Your task to perform on an android device: empty trash in google photos Image 0: 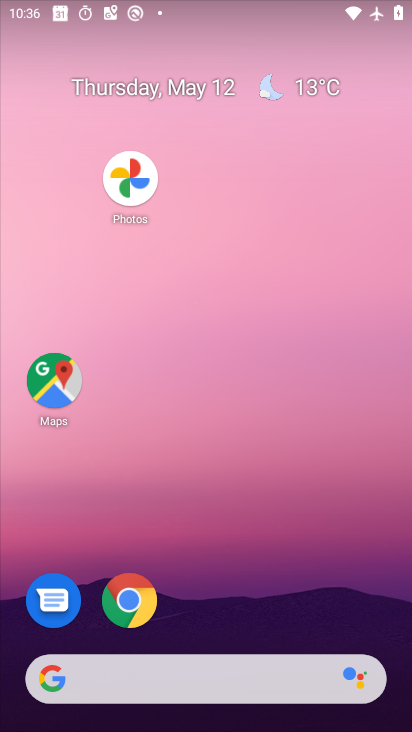
Step 0: drag from (273, 509) to (157, 65)
Your task to perform on an android device: empty trash in google photos Image 1: 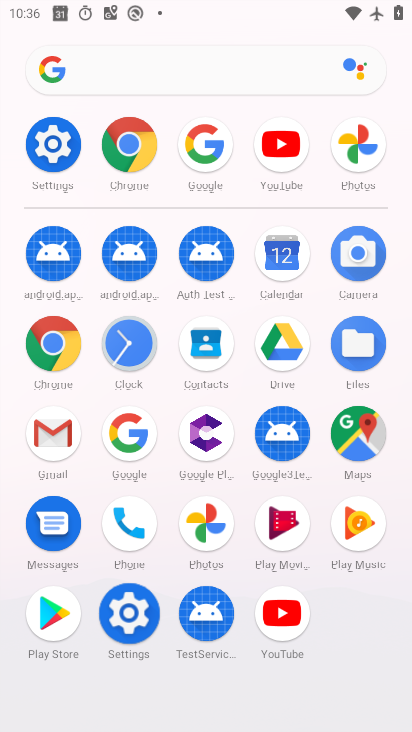
Step 1: click (210, 527)
Your task to perform on an android device: empty trash in google photos Image 2: 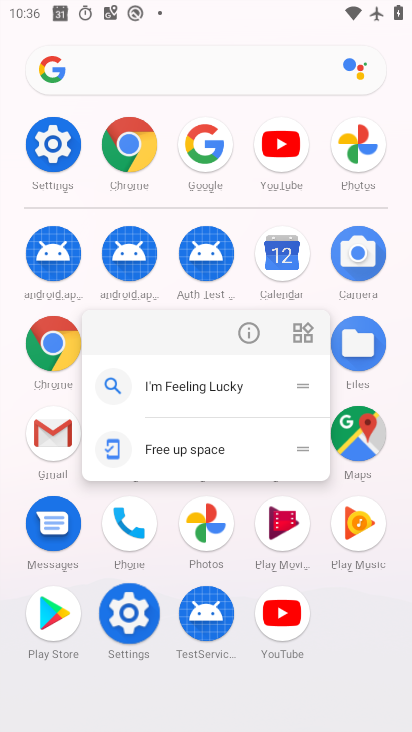
Step 2: click (206, 514)
Your task to perform on an android device: empty trash in google photos Image 3: 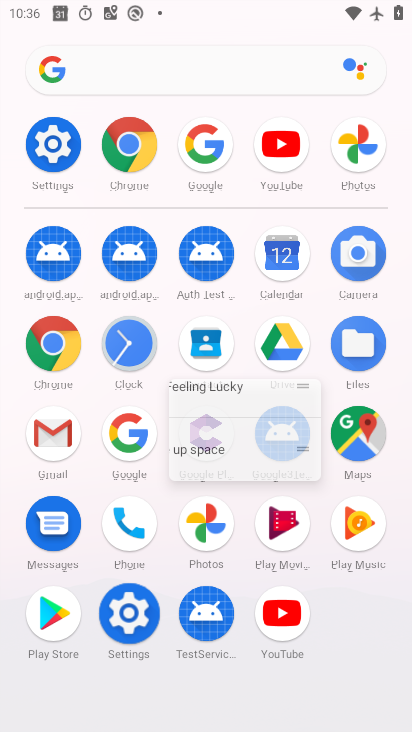
Step 3: click (206, 514)
Your task to perform on an android device: empty trash in google photos Image 4: 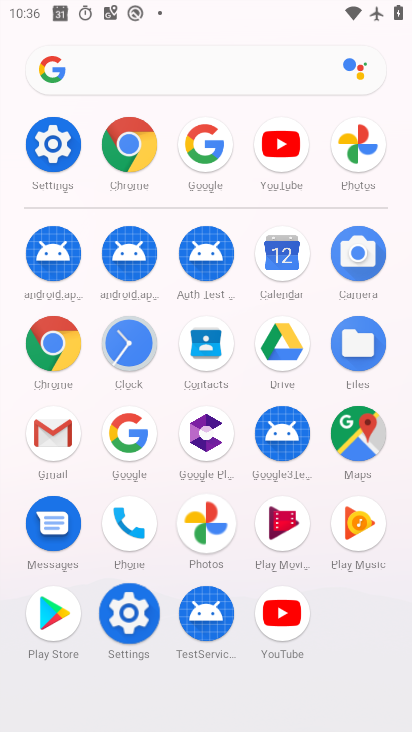
Step 4: click (206, 514)
Your task to perform on an android device: empty trash in google photos Image 5: 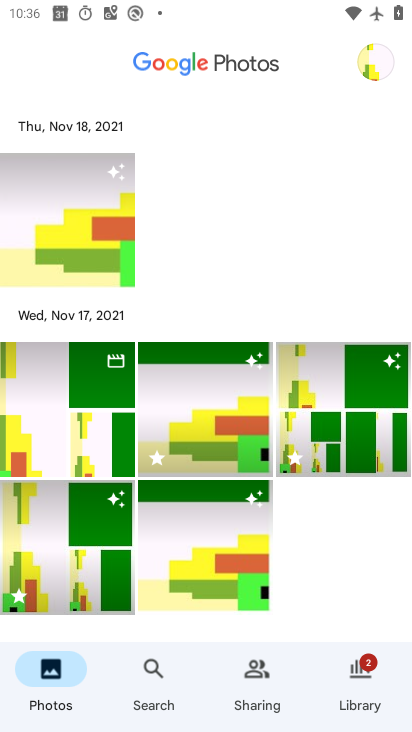
Step 5: drag from (216, 527) to (201, 72)
Your task to perform on an android device: empty trash in google photos Image 6: 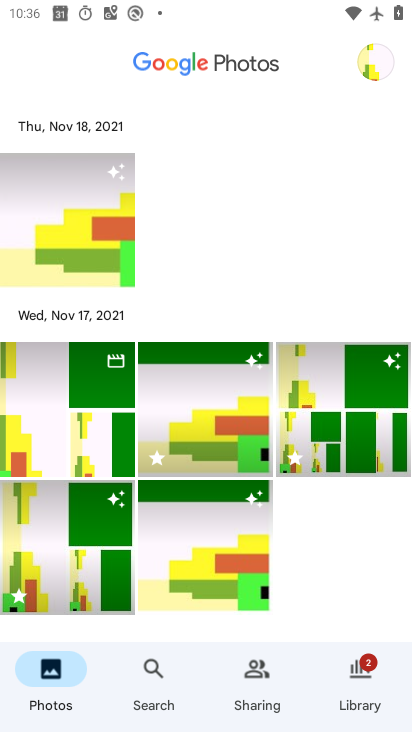
Step 6: drag from (232, 472) to (152, 51)
Your task to perform on an android device: empty trash in google photos Image 7: 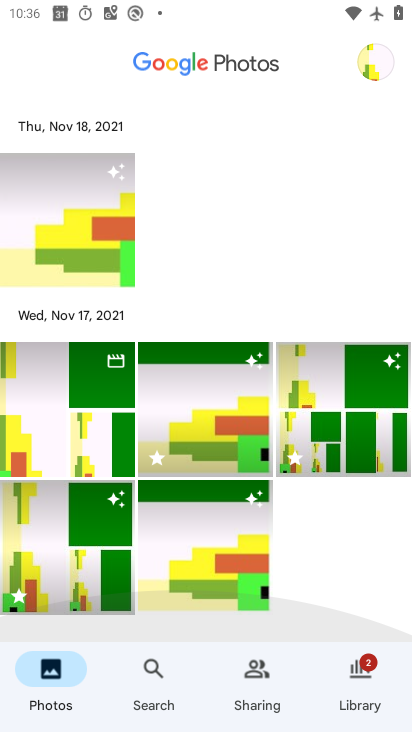
Step 7: drag from (188, 428) to (226, 43)
Your task to perform on an android device: empty trash in google photos Image 8: 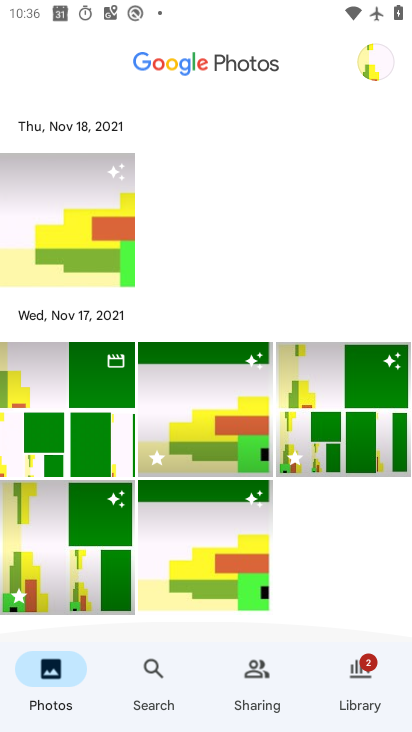
Step 8: drag from (242, 331) to (212, 122)
Your task to perform on an android device: empty trash in google photos Image 9: 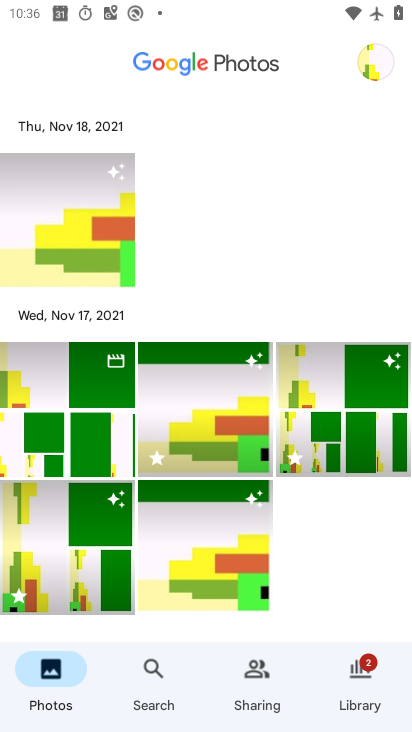
Step 9: drag from (229, 437) to (211, 106)
Your task to perform on an android device: empty trash in google photos Image 10: 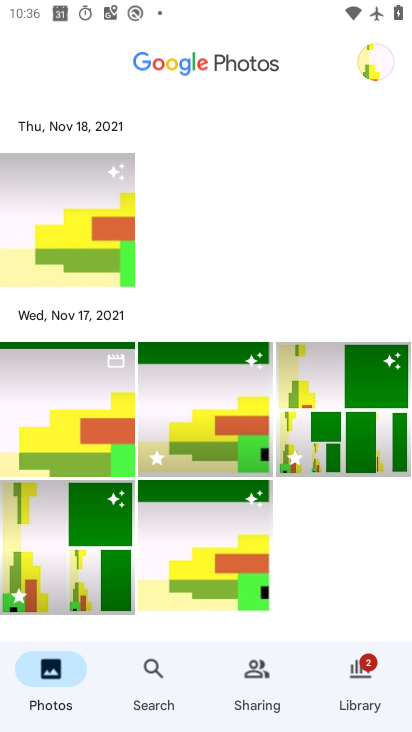
Step 10: drag from (166, 385) to (166, 206)
Your task to perform on an android device: empty trash in google photos Image 11: 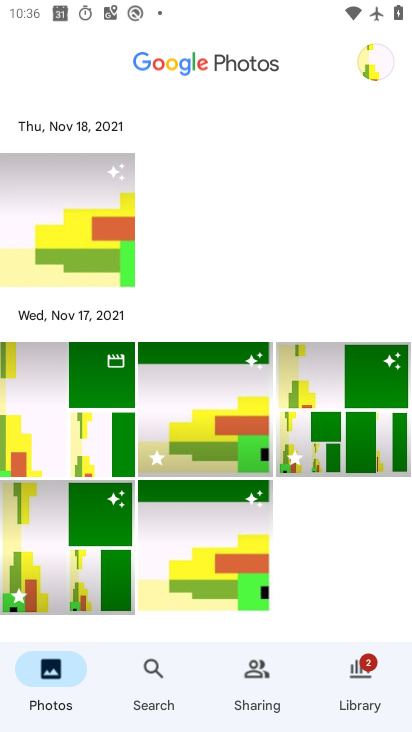
Step 11: press back button
Your task to perform on an android device: empty trash in google photos Image 12: 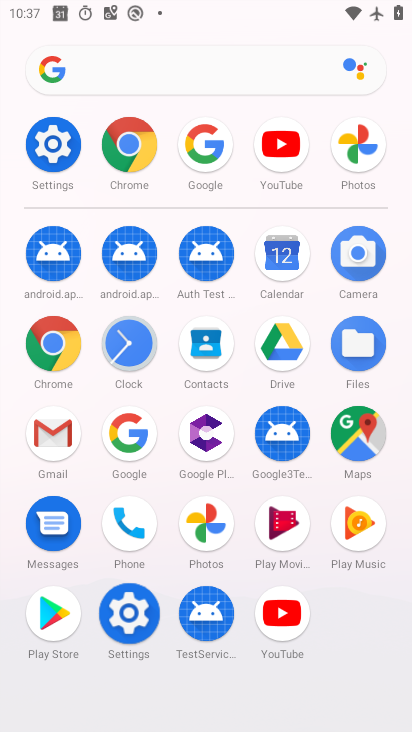
Step 12: click (197, 523)
Your task to perform on an android device: empty trash in google photos Image 13: 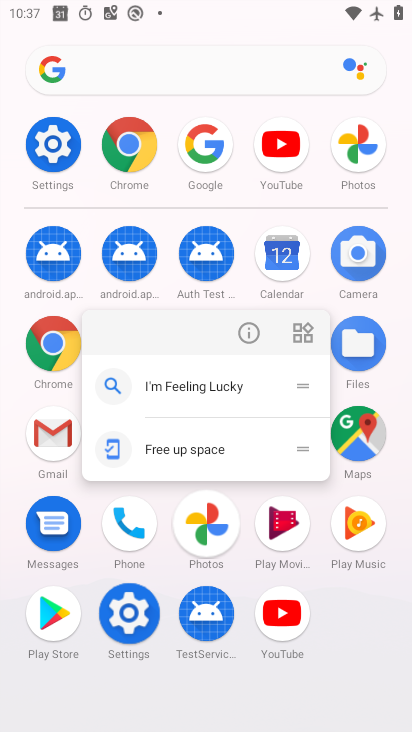
Step 13: click (197, 523)
Your task to perform on an android device: empty trash in google photos Image 14: 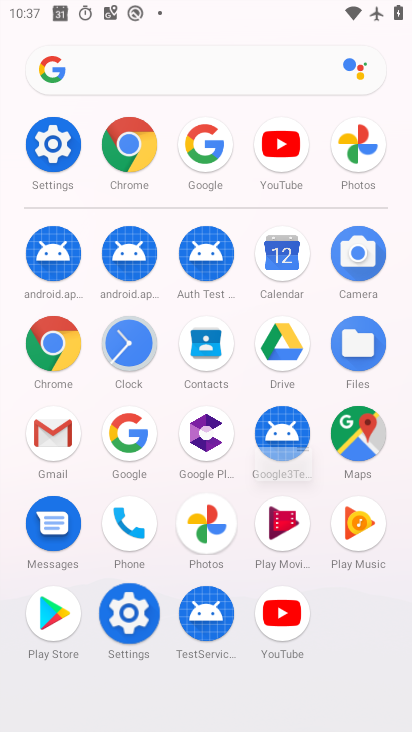
Step 14: click (200, 525)
Your task to perform on an android device: empty trash in google photos Image 15: 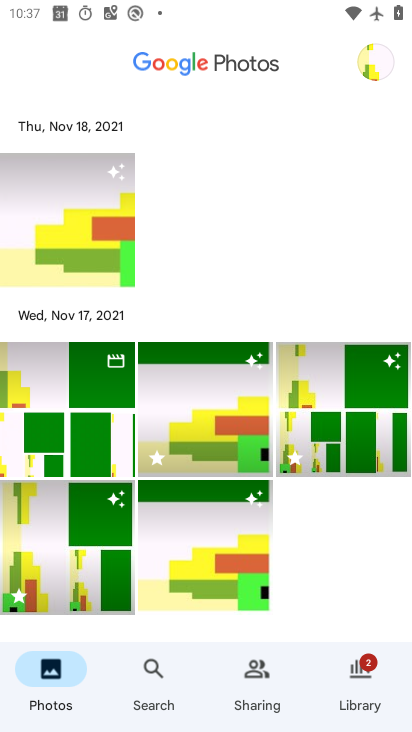
Step 15: drag from (148, 517) to (114, 81)
Your task to perform on an android device: empty trash in google photos Image 16: 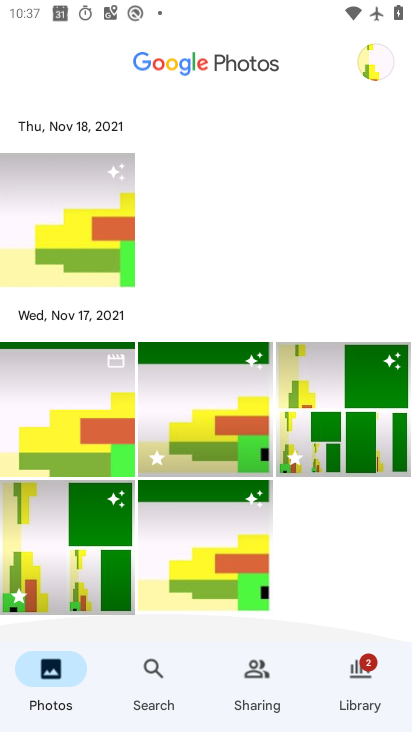
Step 16: drag from (185, 395) to (185, 295)
Your task to perform on an android device: empty trash in google photos Image 17: 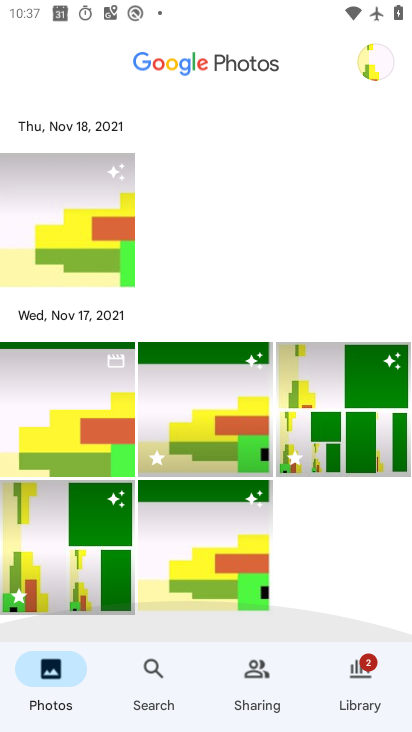
Step 17: drag from (201, 475) to (192, 206)
Your task to perform on an android device: empty trash in google photos Image 18: 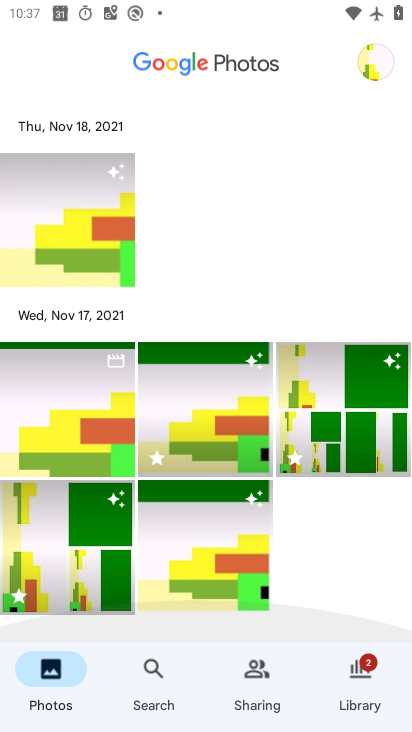
Step 18: drag from (232, 465) to (143, 163)
Your task to perform on an android device: empty trash in google photos Image 19: 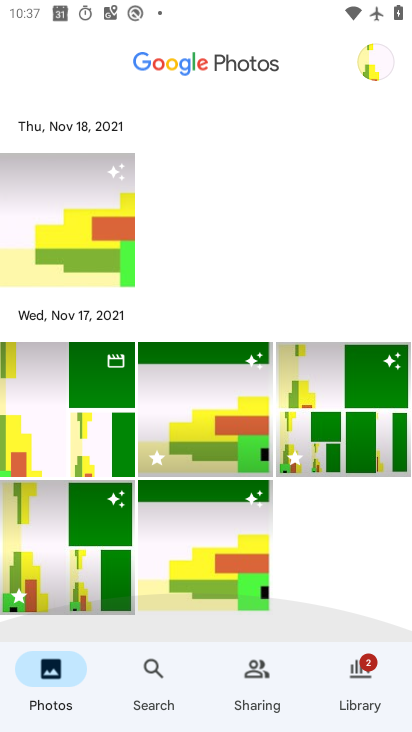
Step 19: drag from (172, 408) to (159, 109)
Your task to perform on an android device: empty trash in google photos Image 20: 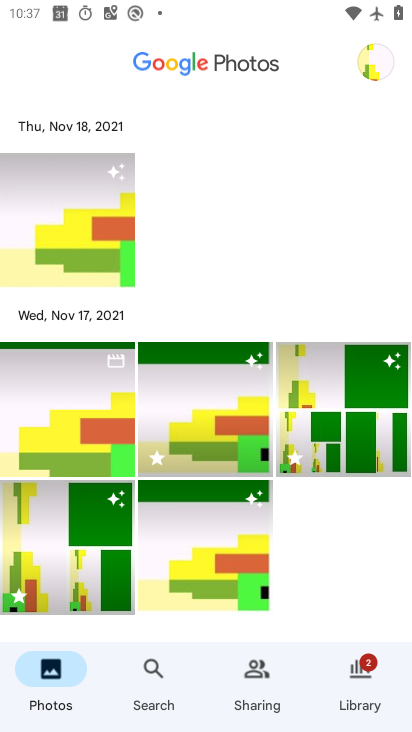
Step 20: press back button
Your task to perform on an android device: empty trash in google photos Image 21: 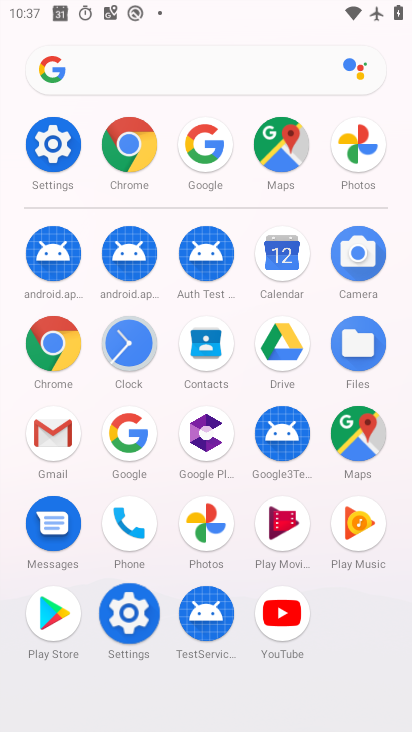
Step 21: drag from (333, 627) to (260, 284)
Your task to perform on an android device: empty trash in google photos Image 22: 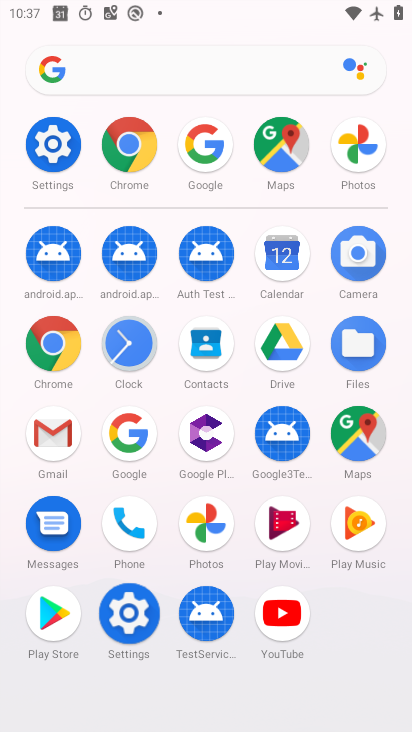
Step 22: click (198, 512)
Your task to perform on an android device: empty trash in google photos Image 23: 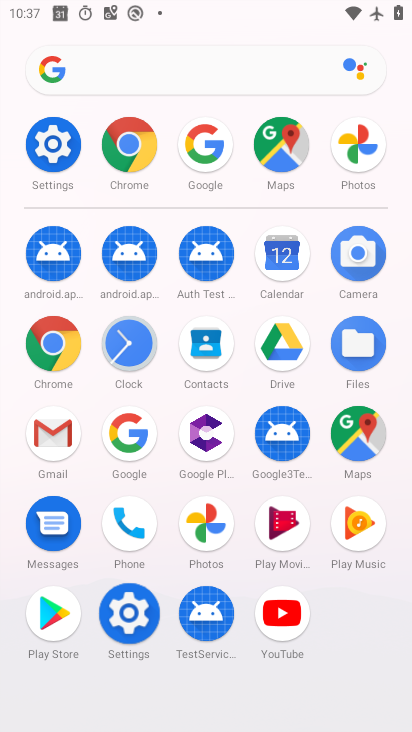
Step 23: click (198, 512)
Your task to perform on an android device: empty trash in google photos Image 24: 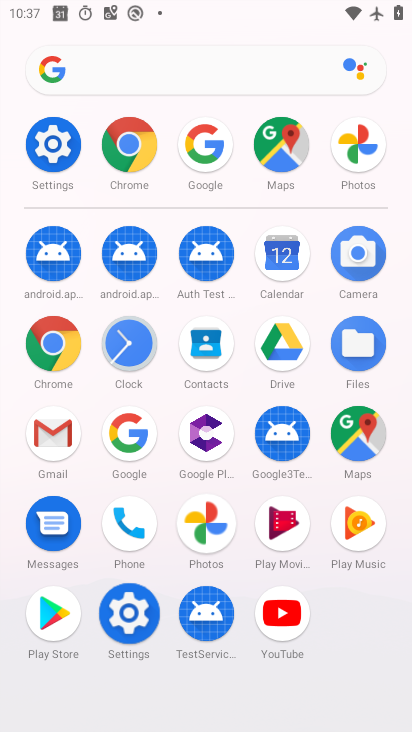
Step 24: click (198, 512)
Your task to perform on an android device: empty trash in google photos Image 25: 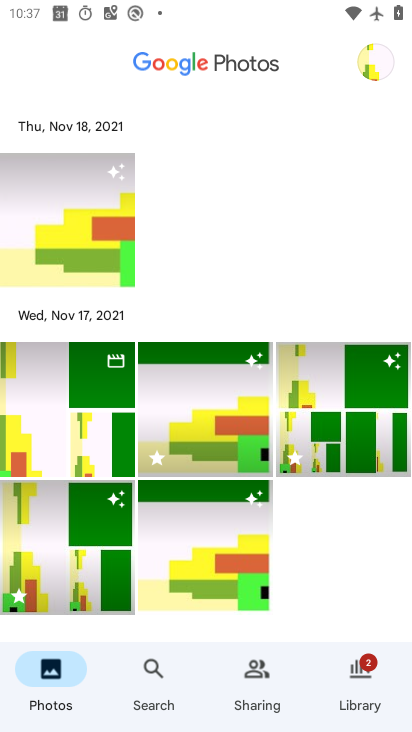
Step 25: drag from (140, 505) to (143, 61)
Your task to perform on an android device: empty trash in google photos Image 26: 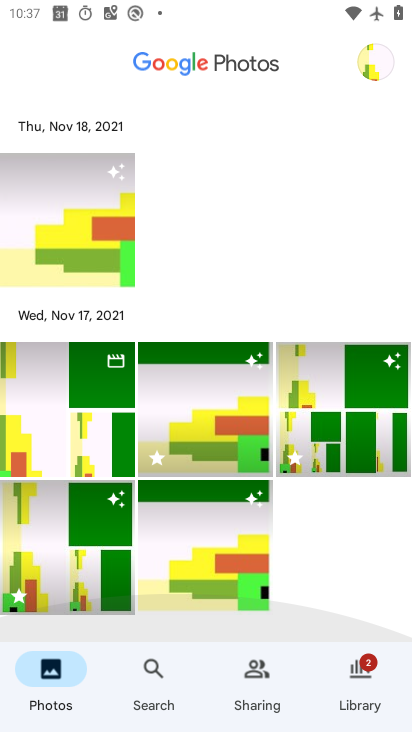
Step 26: drag from (220, 432) to (193, 61)
Your task to perform on an android device: empty trash in google photos Image 27: 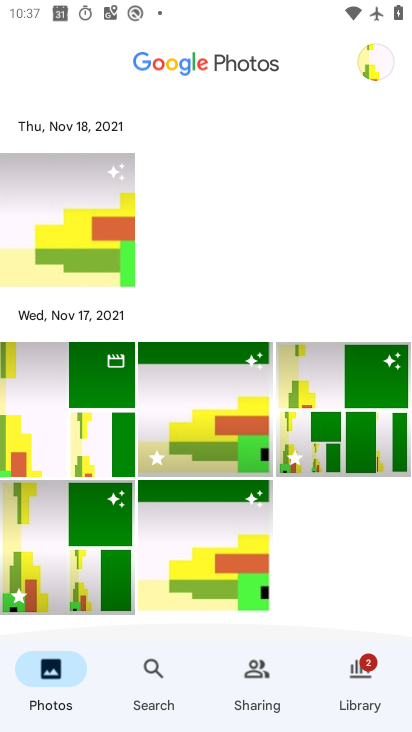
Step 27: drag from (212, 434) to (180, 145)
Your task to perform on an android device: empty trash in google photos Image 28: 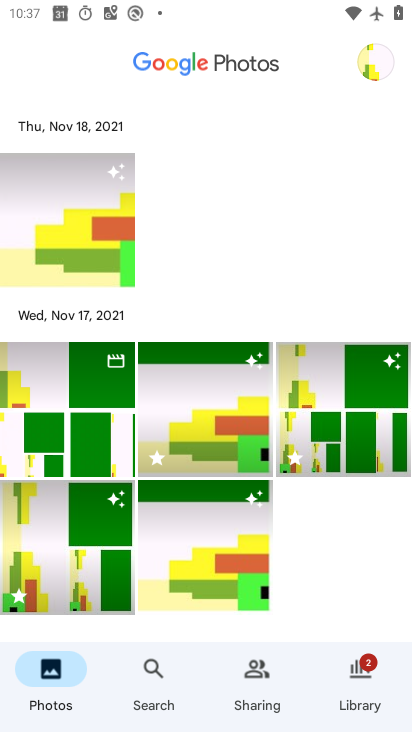
Step 28: press back button
Your task to perform on an android device: empty trash in google photos Image 29: 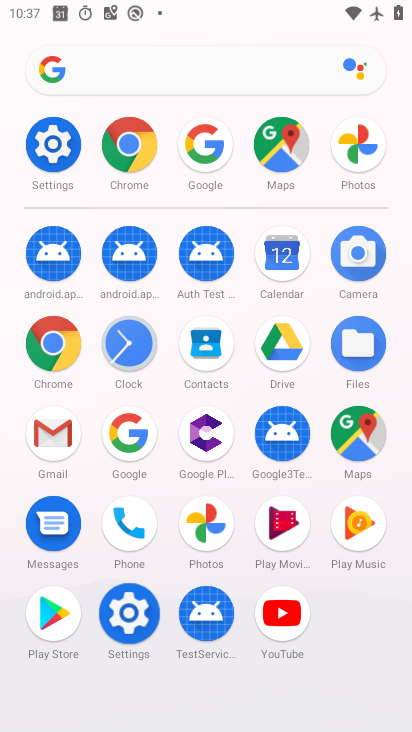
Step 29: click (195, 522)
Your task to perform on an android device: empty trash in google photos Image 30: 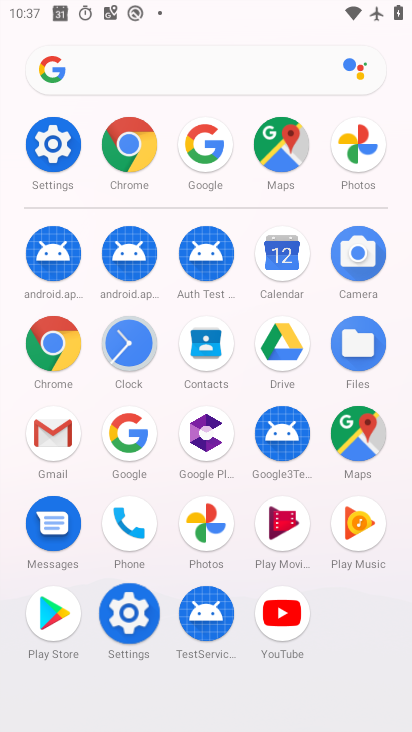
Step 30: click (195, 522)
Your task to perform on an android device: empty trash in google photos Image 31: 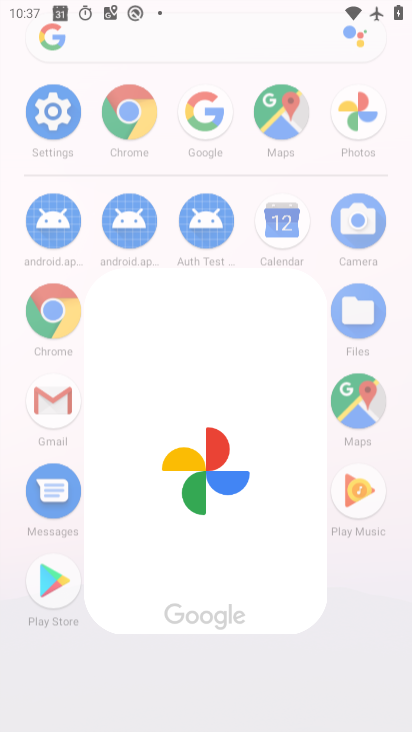
Step 31: click (200, 524)
Your task to perform on an android device: empty trash in google photos Image 32: 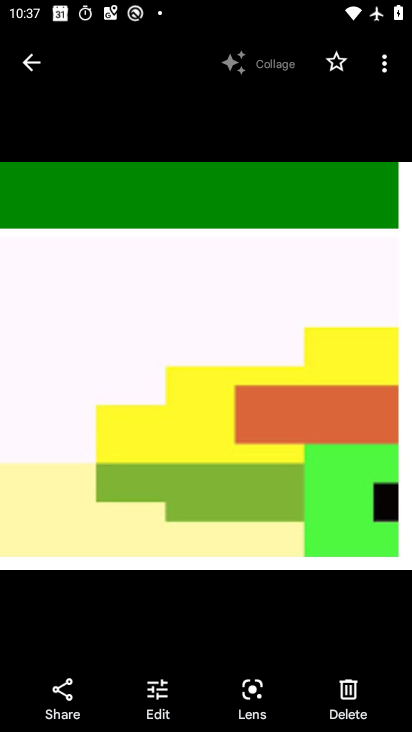
Step 32: click (40, 73)
Your task to perform on an android device: empty trash in google photos Image 33: 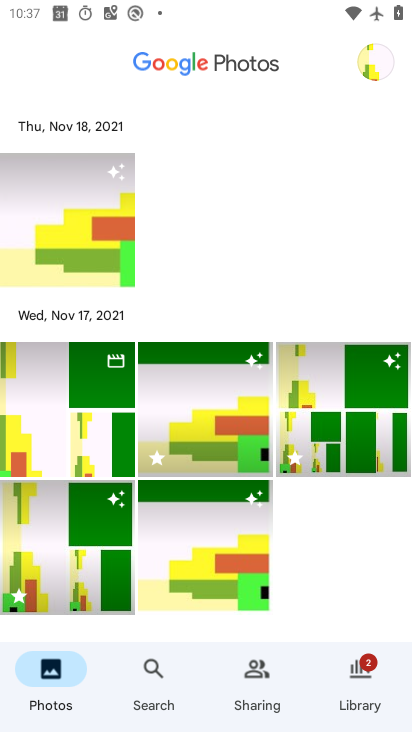
Step 33: task complete